Your task to perform on an android device: uninstall "Clock" Image 0: 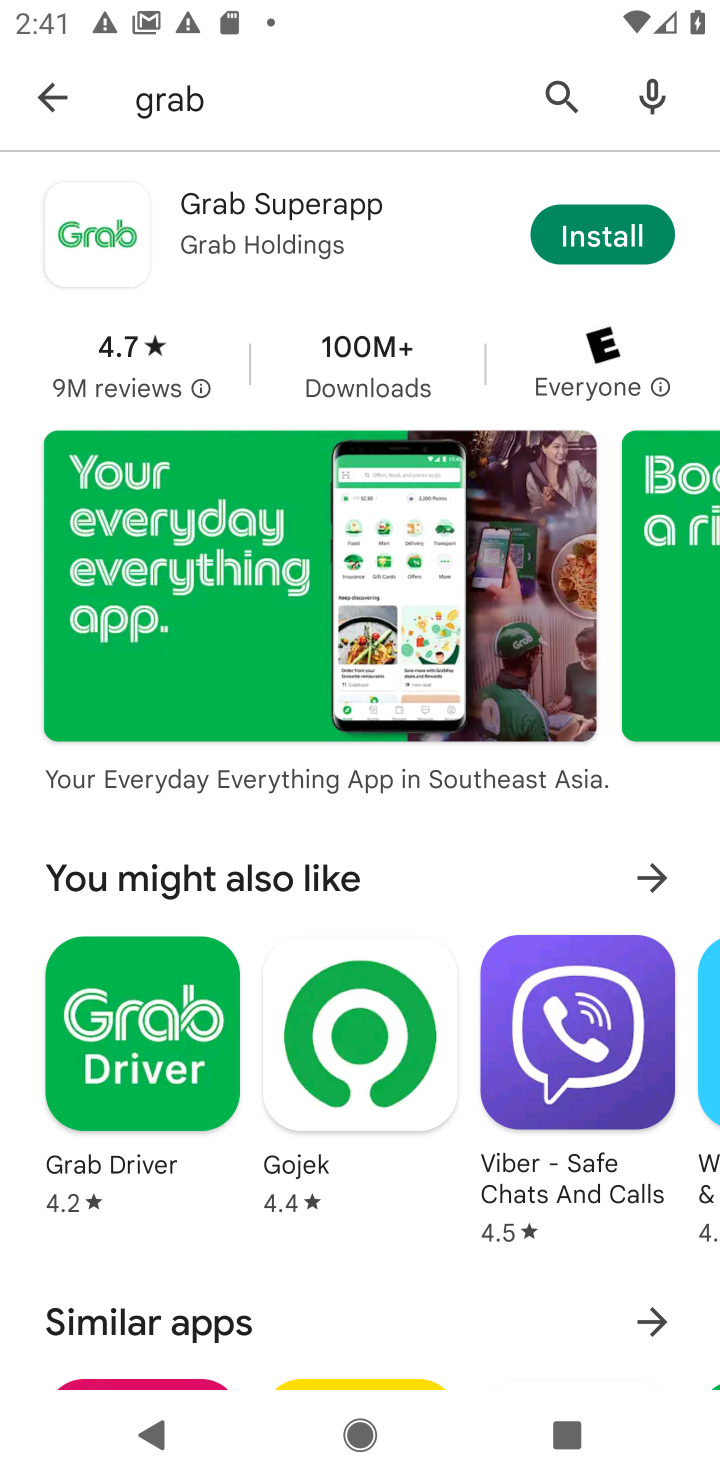
Step 0: press home button
Your task to perform on an android device: uninstall "Clock" Image 1: 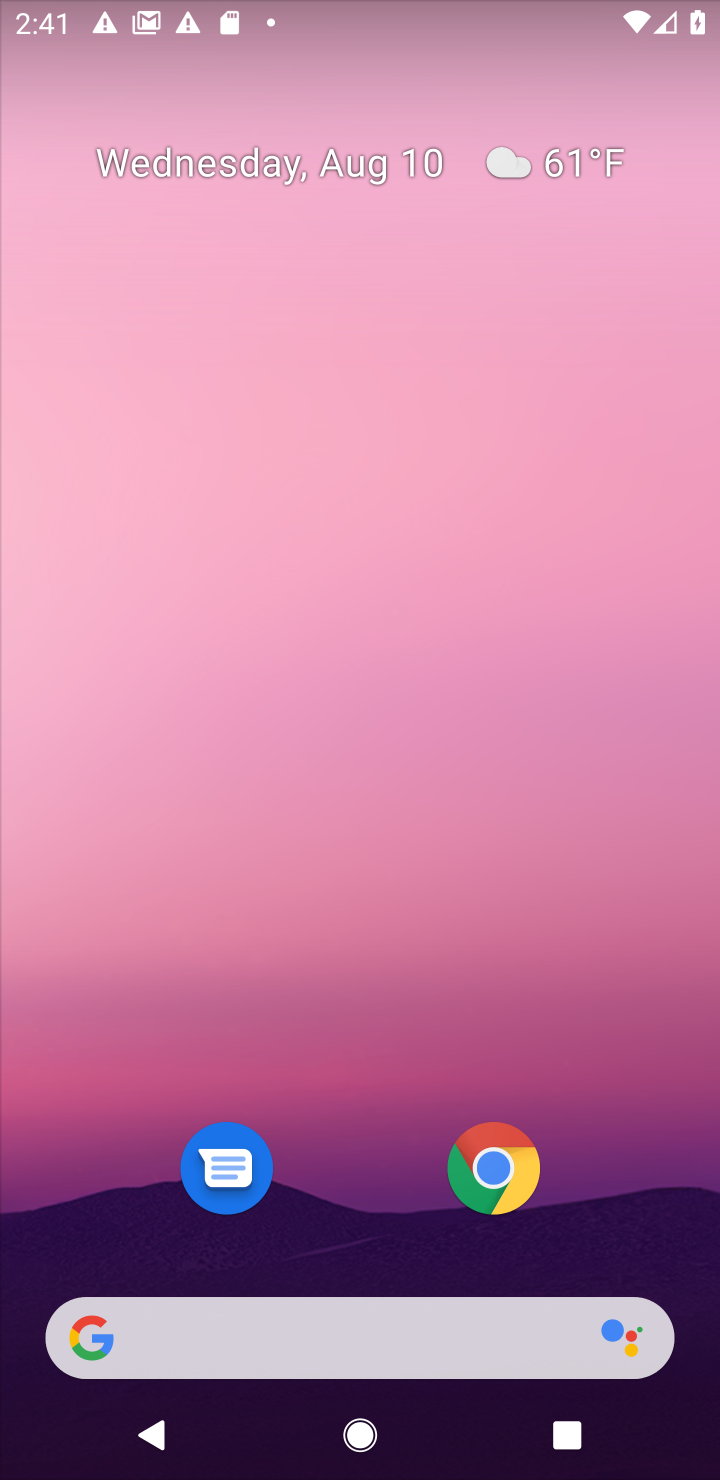
Step 1: drag from (265, 1345) to (391, 162)
Your task to perform on an android device: uninstall "Clock" Image 2: 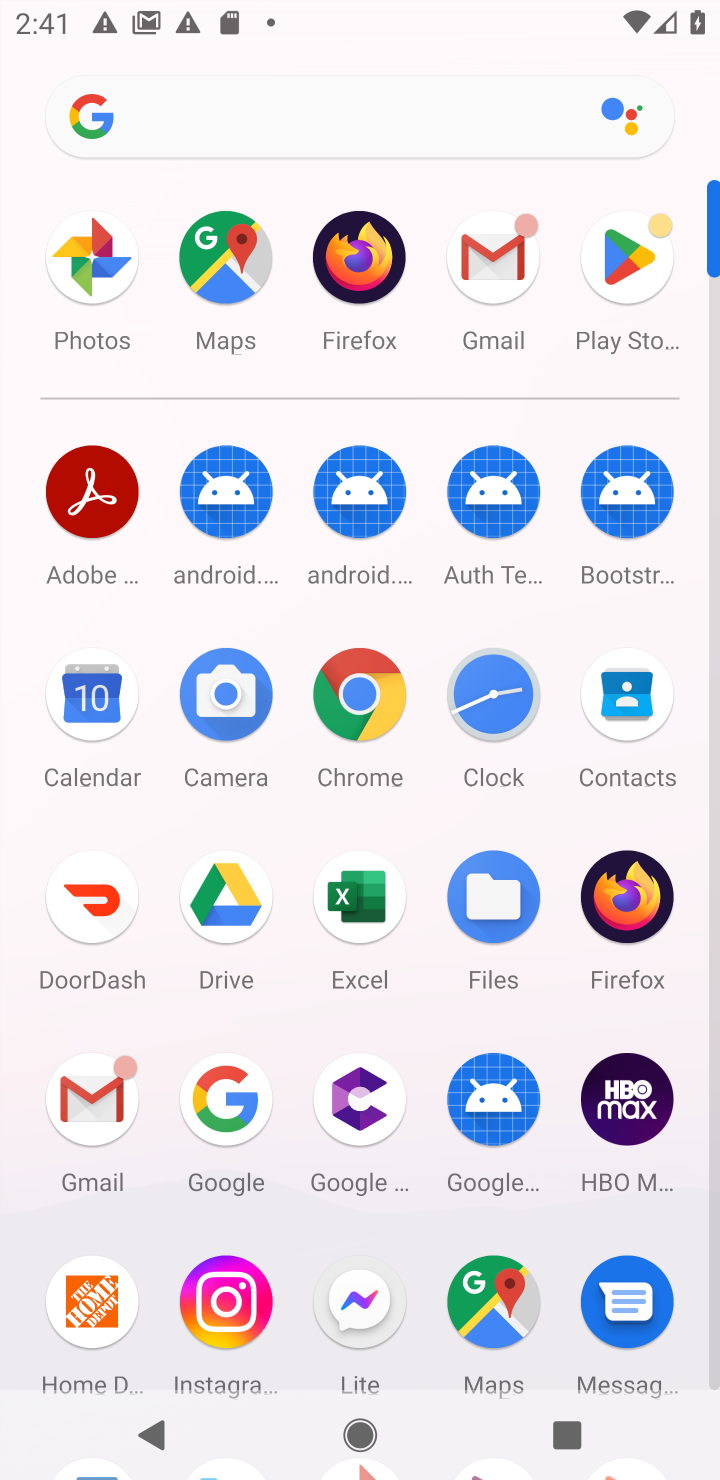
Step 2: click (629, 267)
Your task to perform on an android device: uninstall "Clock" Image 3: 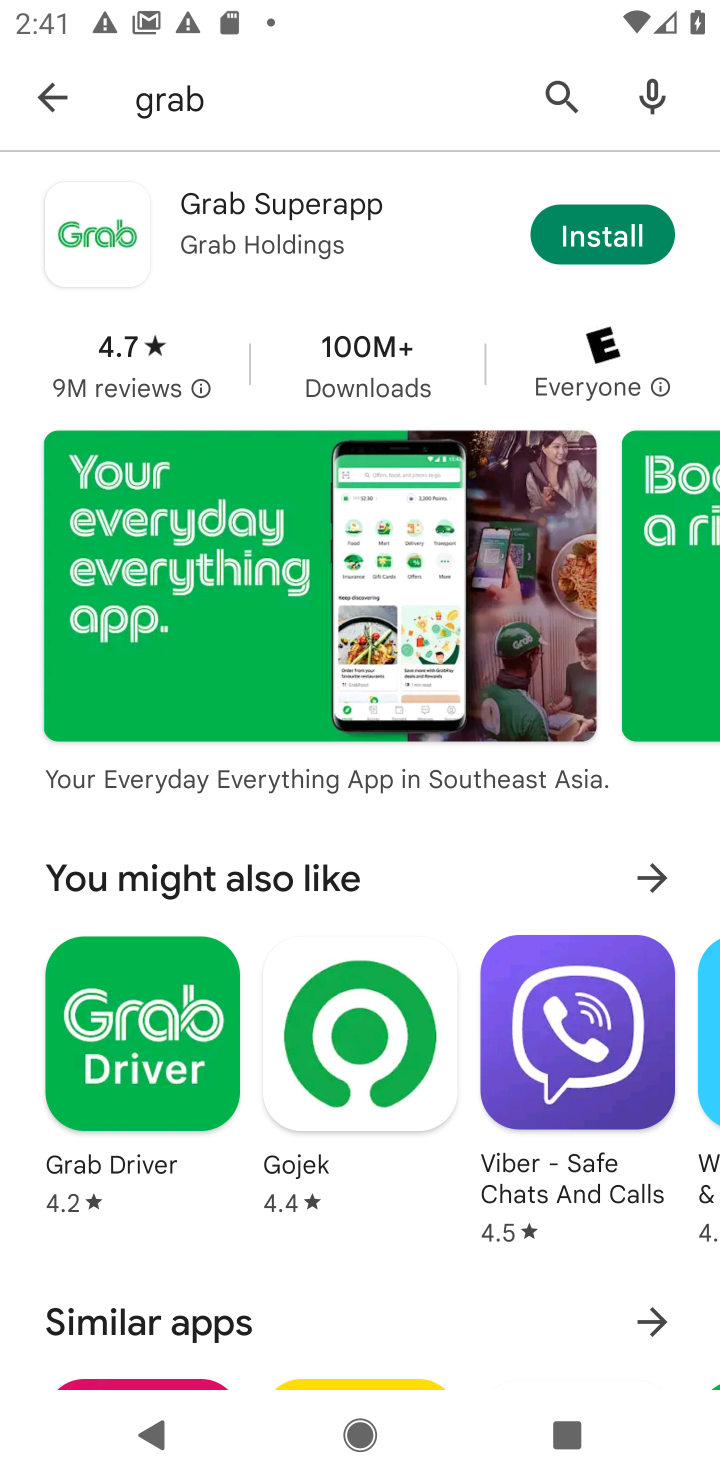
Step 3: click (560, 104)
Your task to perform on an android device: uninstall "Clock" Image 4: 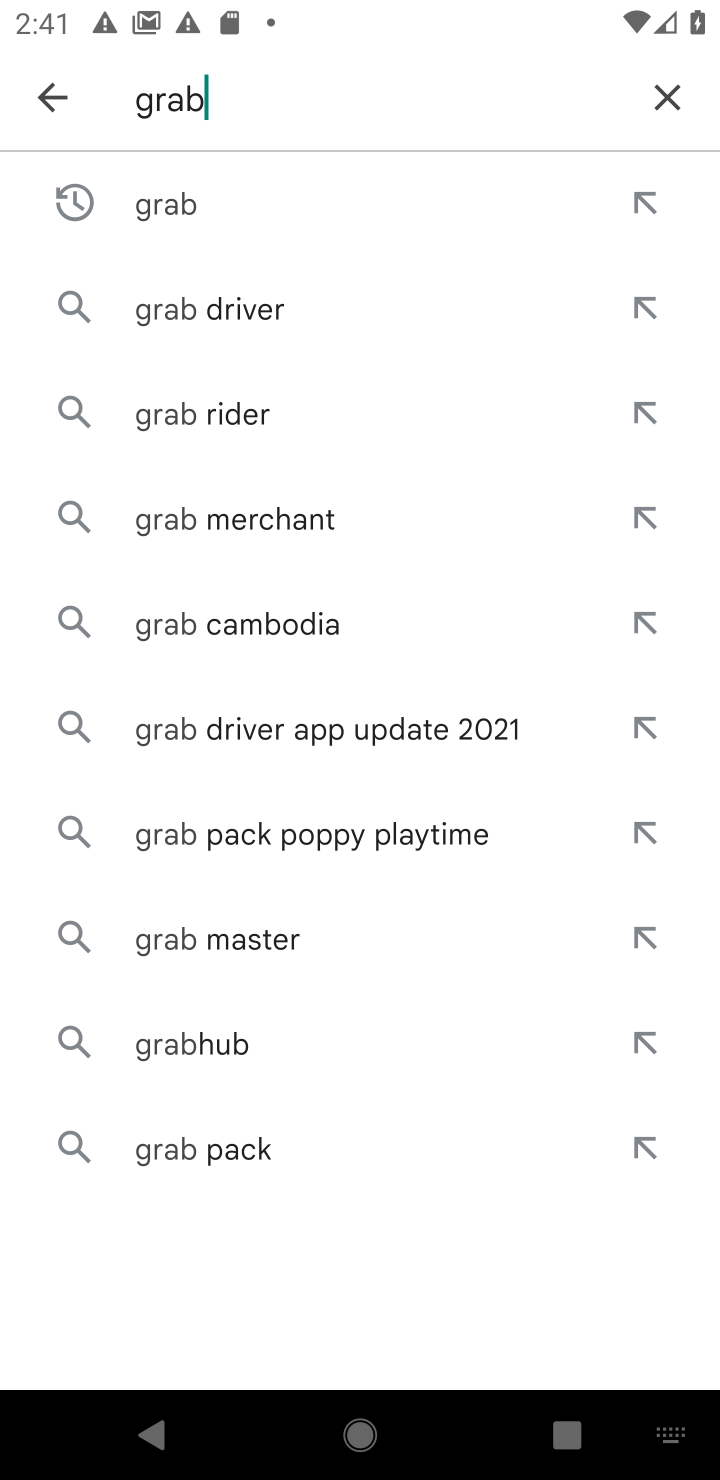
Step 4: click (675, 95)
Your task to perform on an android device: uninstall "Clock" Image 5: 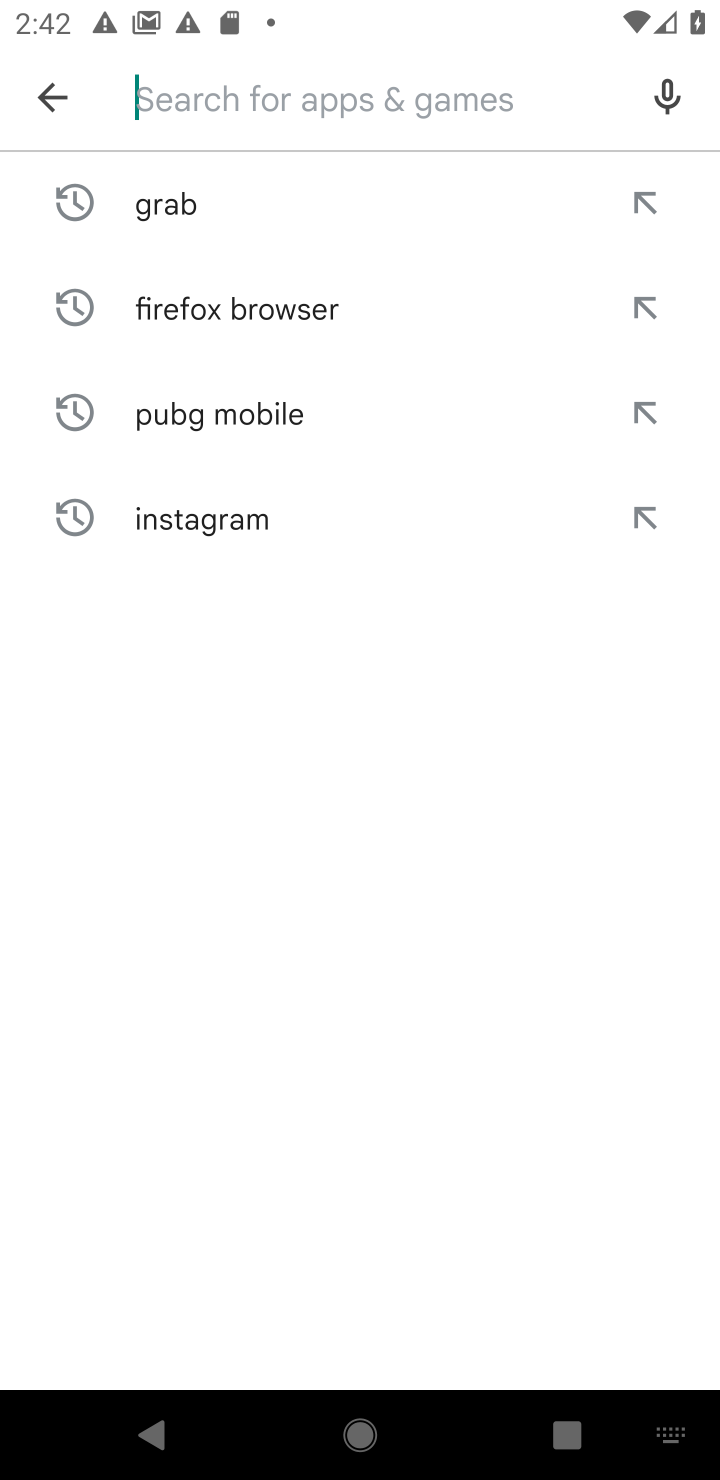
Step 5: type "Clock"
Your task to perform on an android device: uninstall "Clock" Image 6: 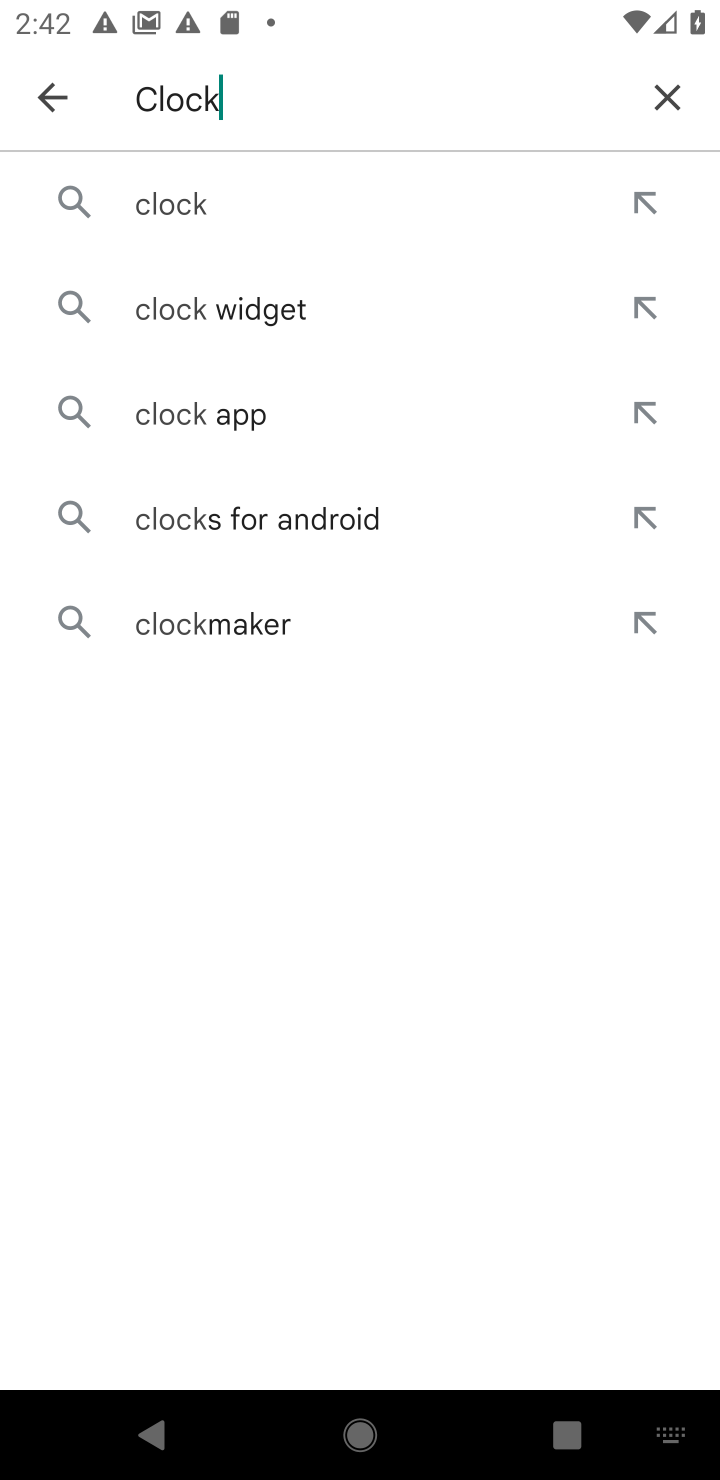
Step 6: click (160, 205)
Your task to perform on an android device: uninstall "Clock" Image 7: 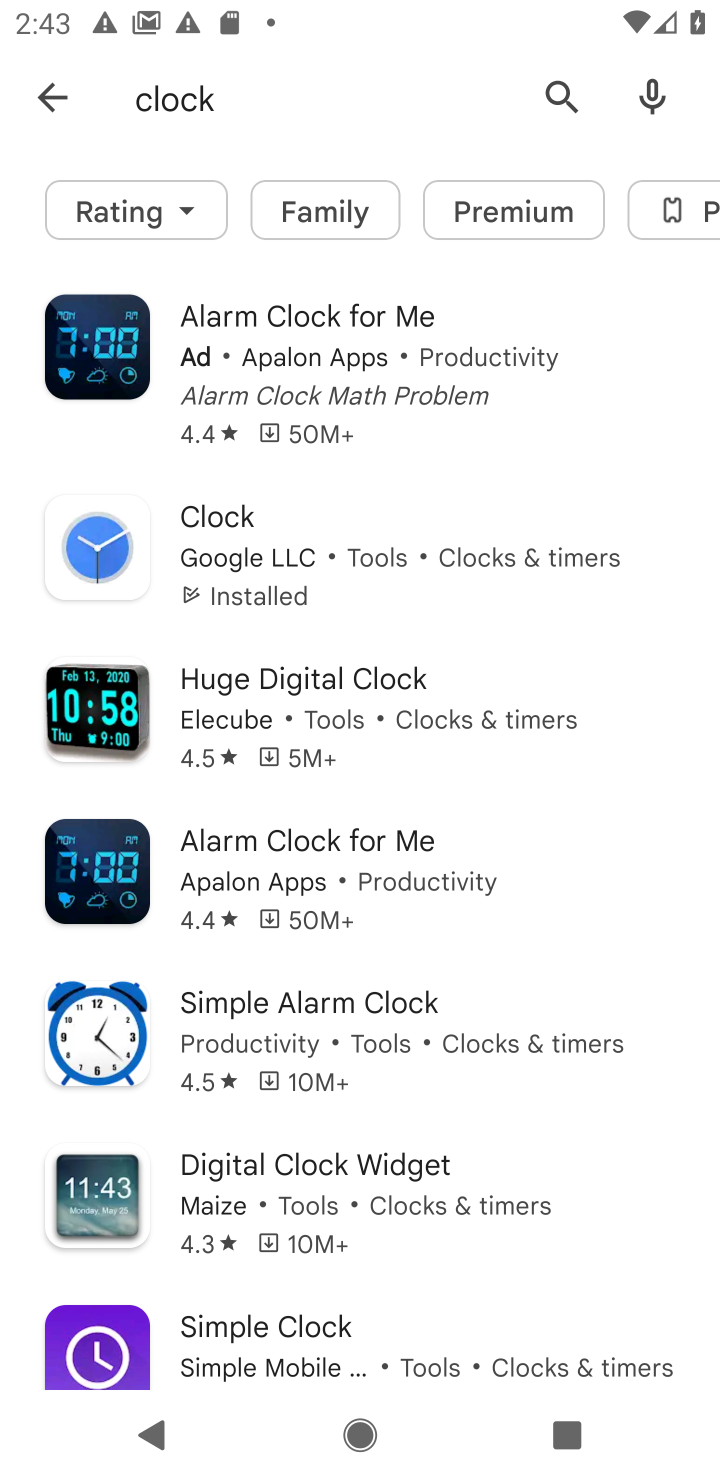
Step 7: click (232, 522)
Your task to perform on an android device: uninstall "Clock" Image 8: 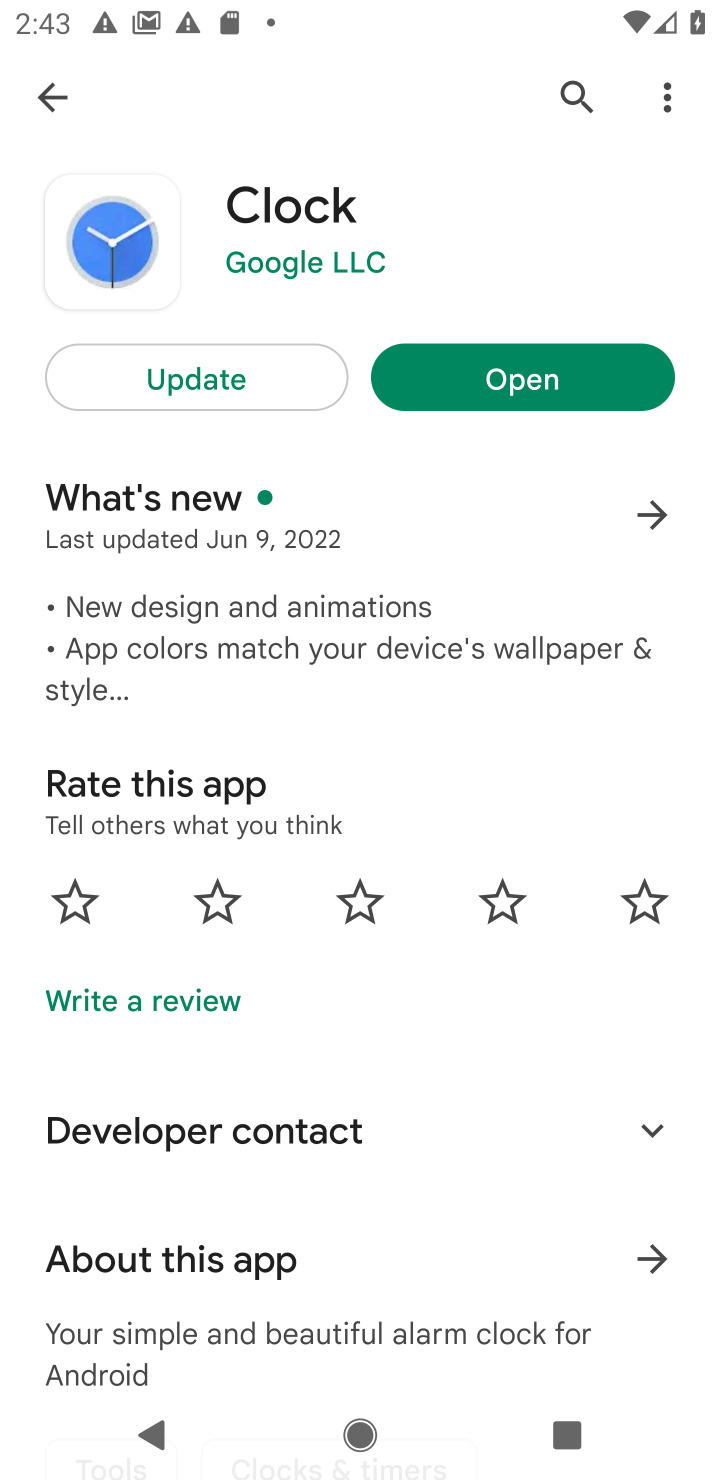
Step 8: click (214, 397)
Your task to perform on an android device: uninstall "Clock" Image 9: 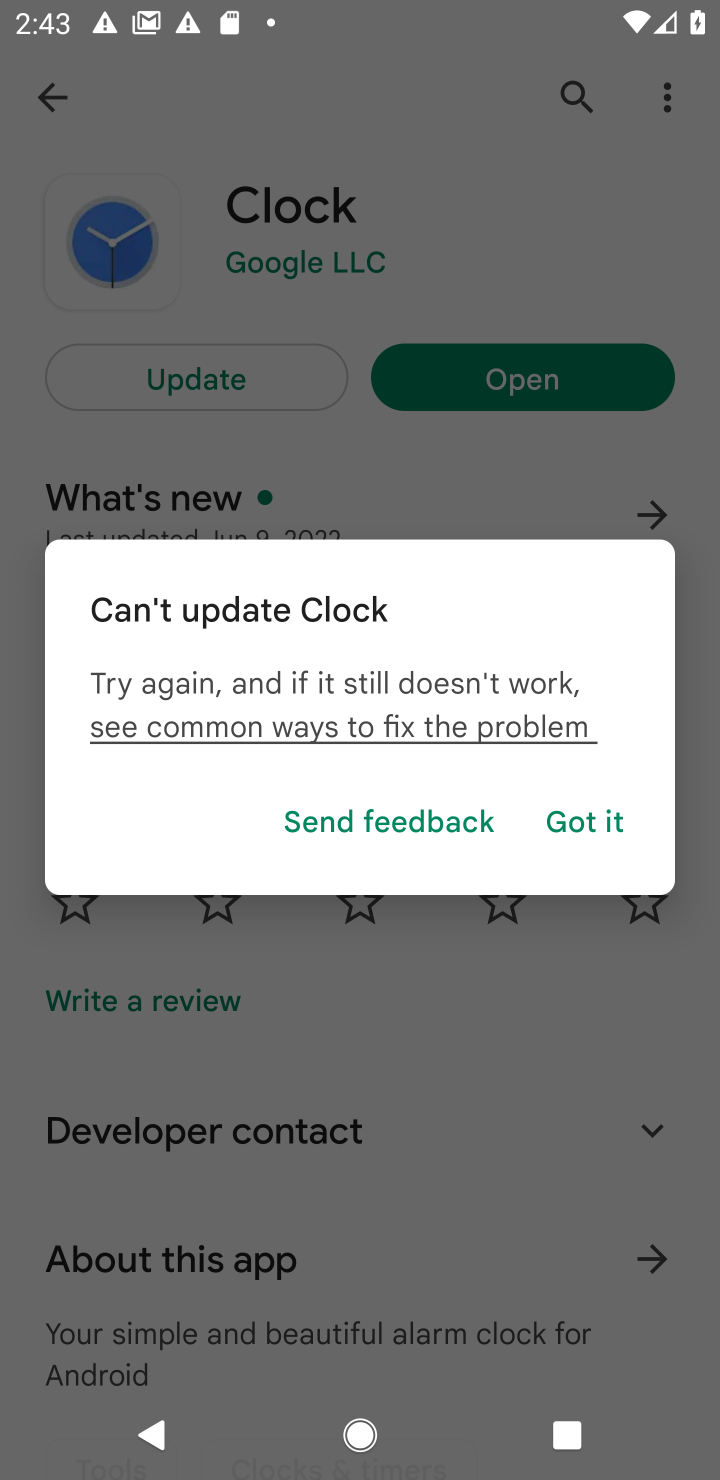
Step 9: click (572, 811)
Your task to perform on an android device: uninstall "Clock" Image 10: 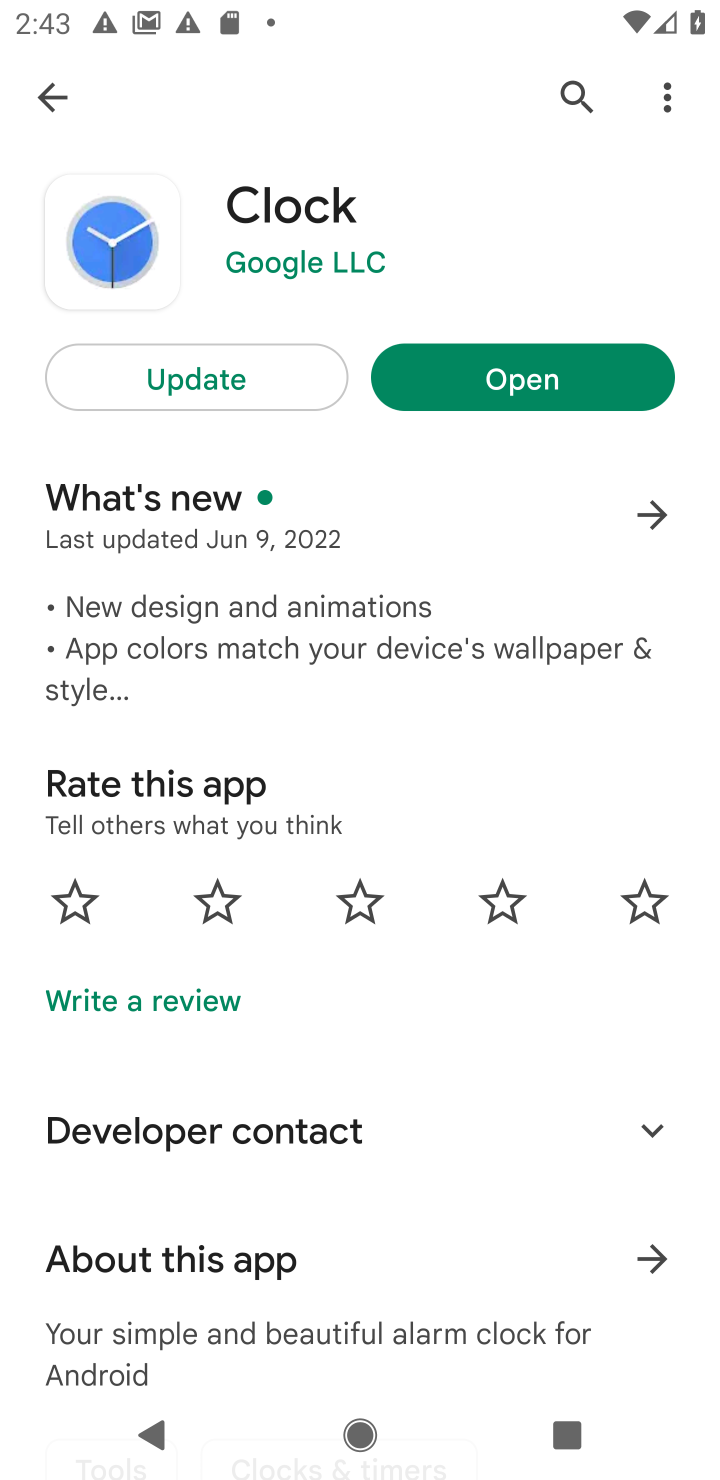
Step 10: click (230, 387)
Your task to perform on an android device: uninstall "Clock" Image 11: 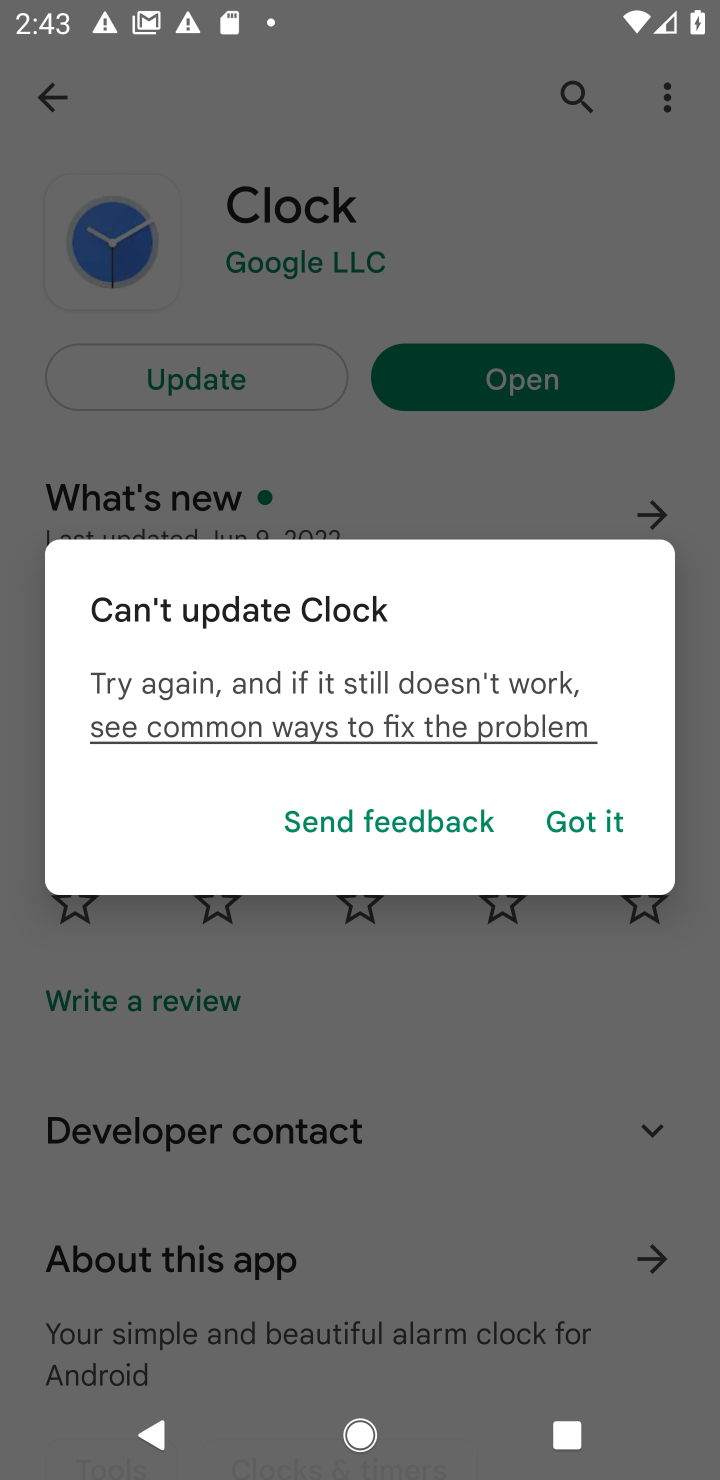
Step 11: click (571, 815)
Your task to perform on an android device: uninstall "Clock" Image 12: 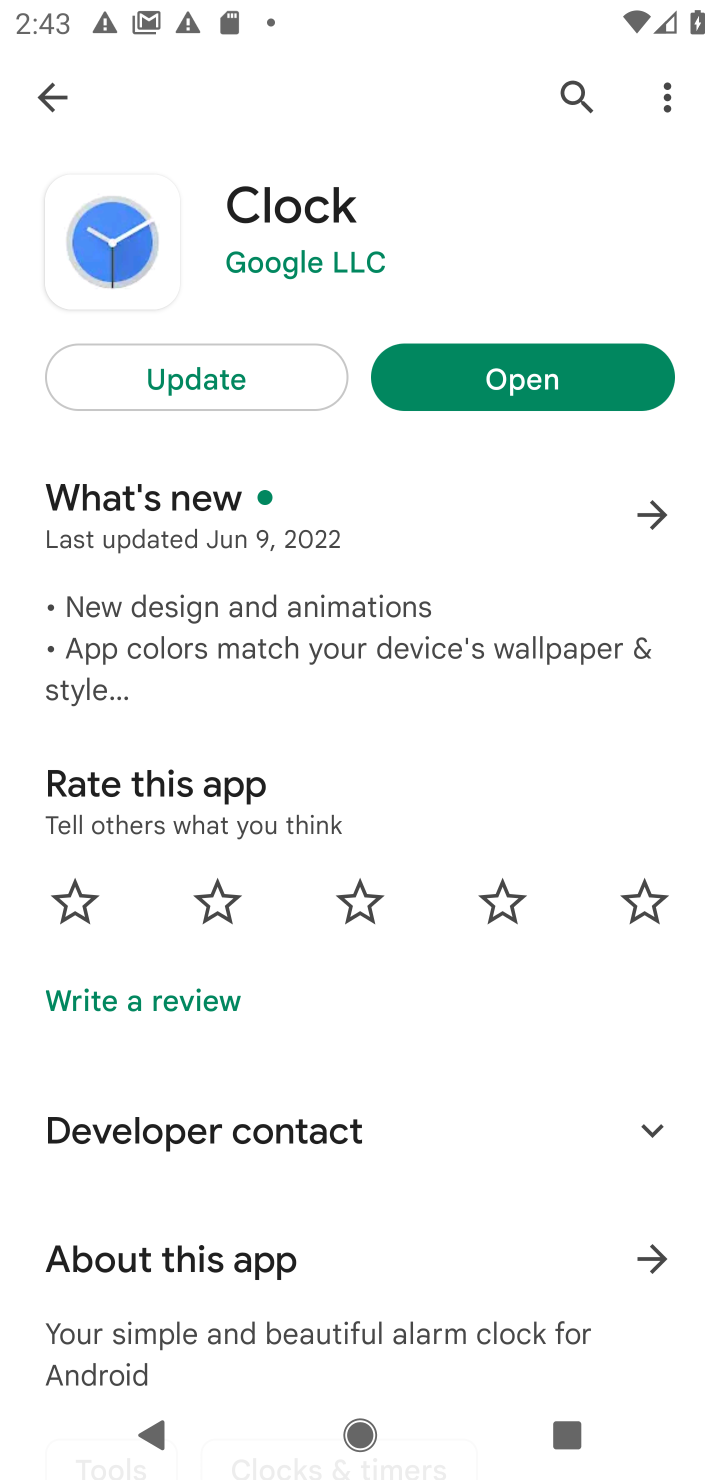
Step 12: task complete